Your task to perform on an android device: Show me the alarms in the clock app Image 0: 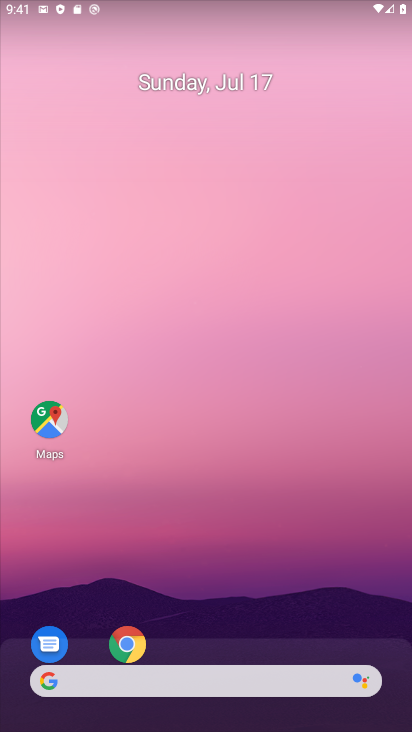
Step 0: drag from (134, 617) to (190, 106)
Your task to perform on an android device: Show me the alarms in the clock app Image 1: 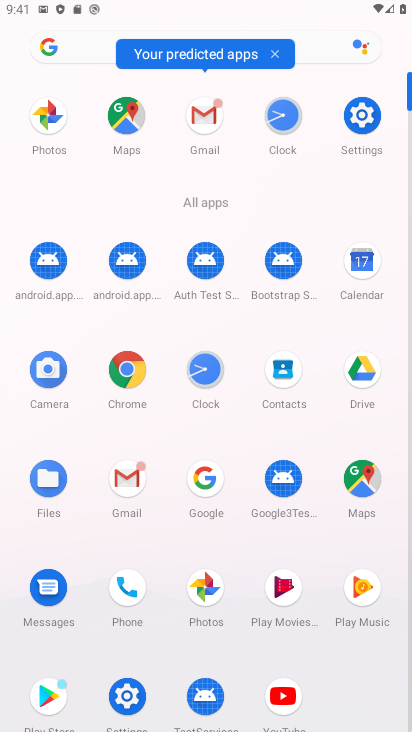
Step 1: click (291, 122)
Your task to perform on an android device: Show me the alarms in the clock app Image 2: 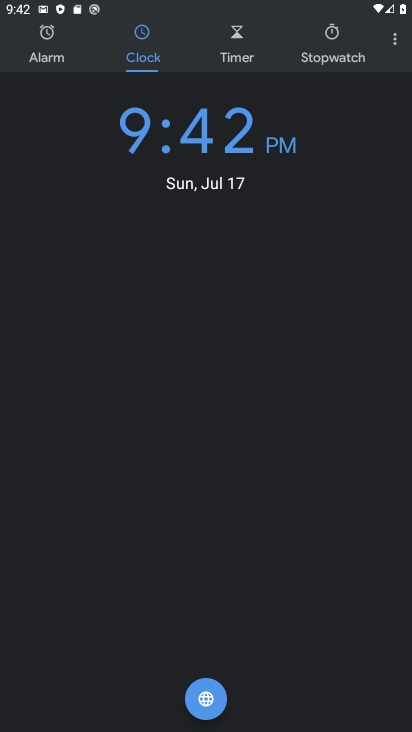
Step 2: click (56, 52)
Your task to perform on an android device: Show me the alarms in the clock app Image 3: 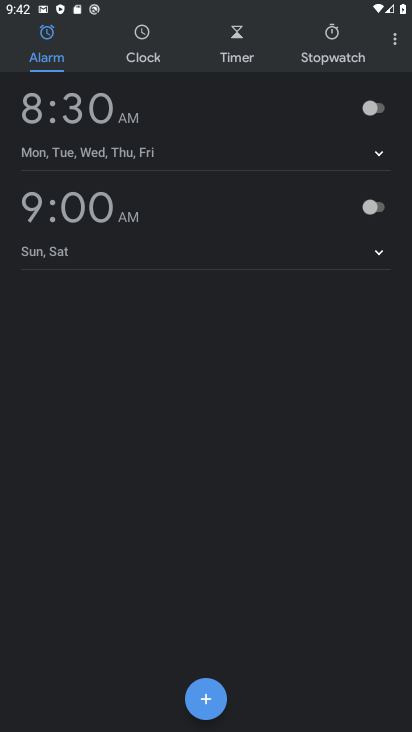
Step 3: task complete